Your task to perform on an android device: turn off notifications in google photos Image 0: 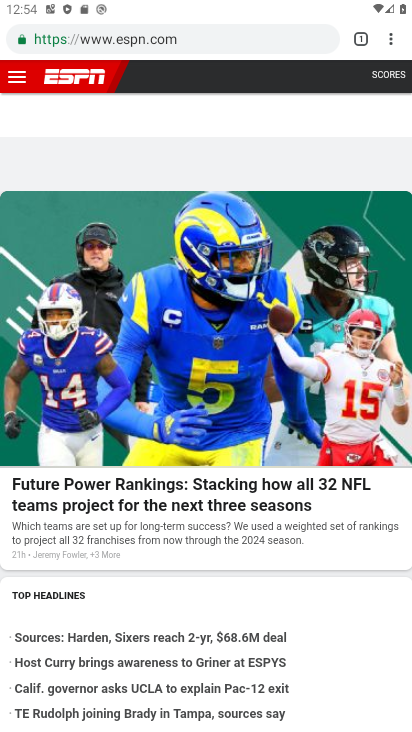
Step 0: press home button
Your task to perform on an android device: turn off notifications in google photos Image 1: 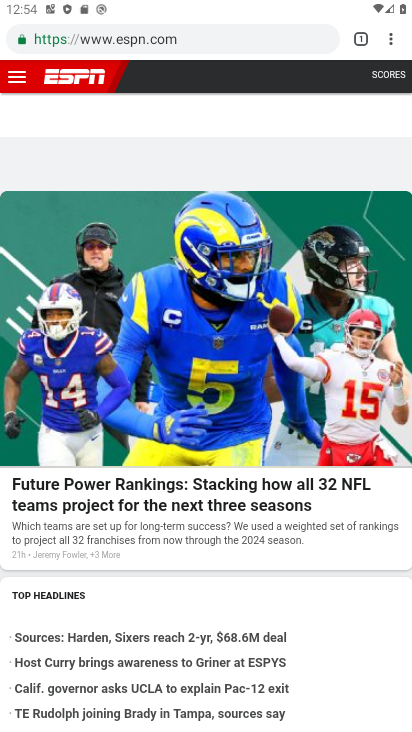
Step 1: drag from (226, 653) to (126, 82)
Your task to perform on an android device: turn off notifications in google photos Image 2: 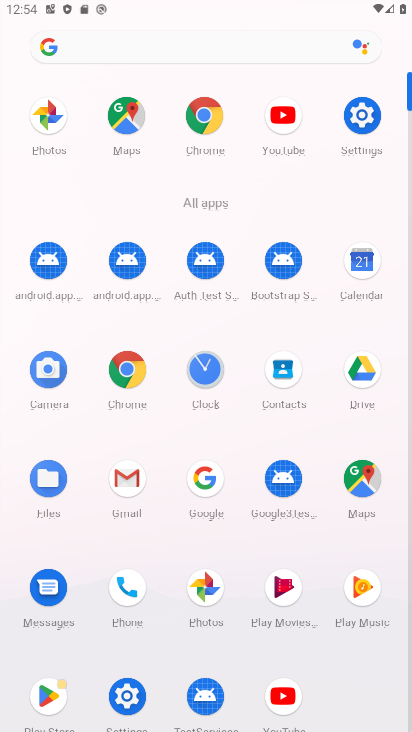
Step 2: click (227, 574)
Your task to perform on an android device: turn off notifications in google photos Image 3: 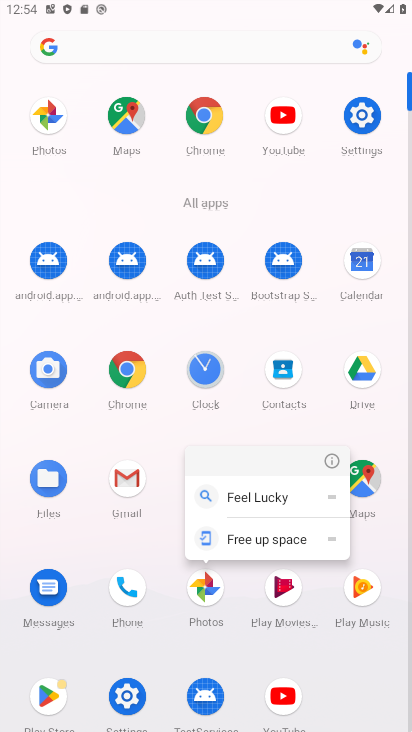
Step 3: click (341, 463)
Your task to perform on an android device: turn off notifications in google photos Image 4: 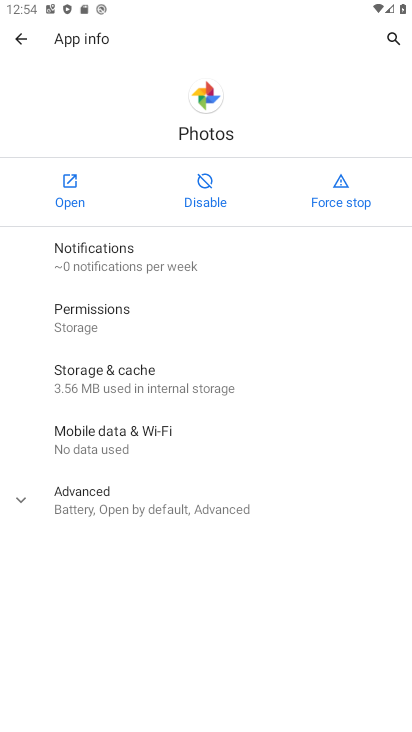
Step 4: click (102, 249)
Your task to perform on an android device: turn off notifications in google photos Image 5: 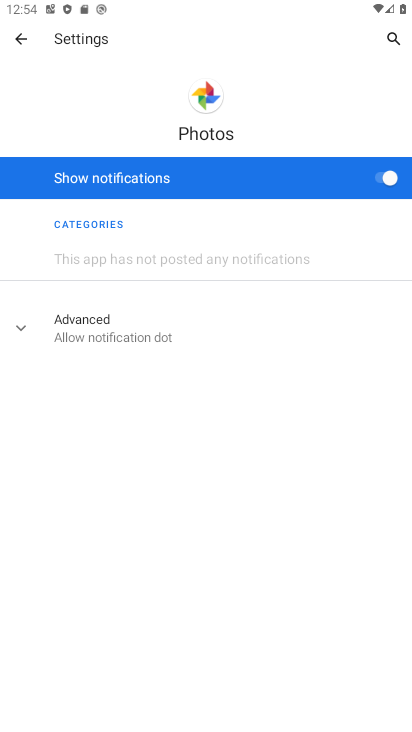
Step 5: click (353, 174)
Your task to perform on an android device: turn off notifications in google photos Image 6: 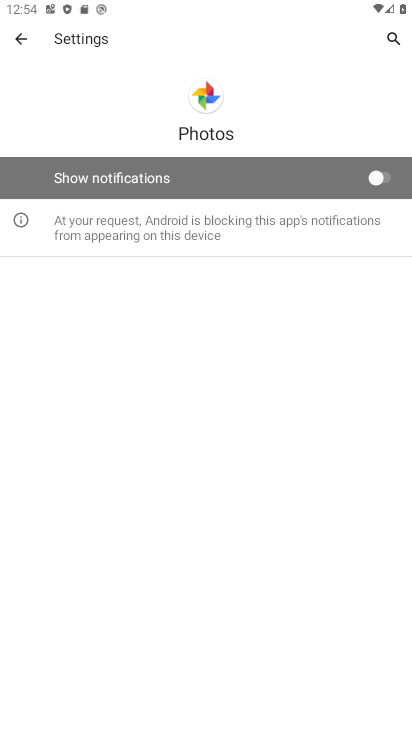
Step 6: task complete